Your task to perform on an android device: turn off javascript in the chrome app Image 0: 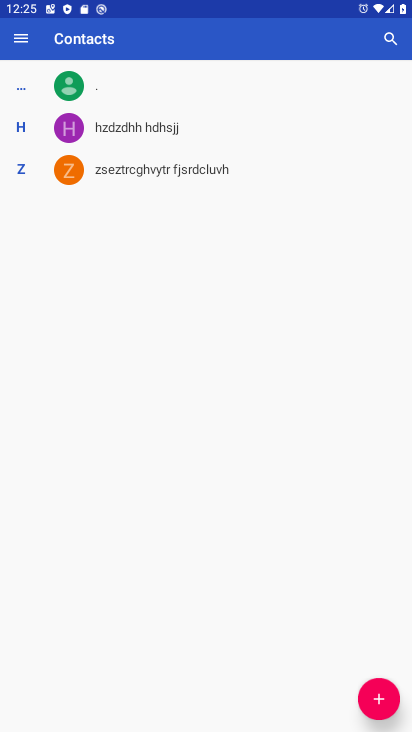
Step 0: press home button
Your task to perform on an android device: turn off javascript in the chrome app Image 1: 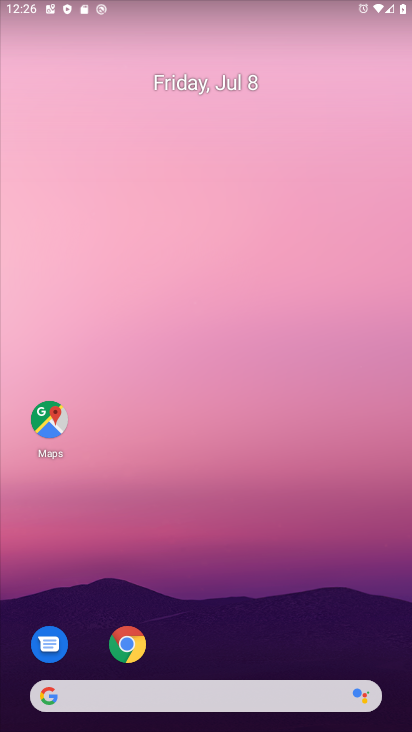
Step 1: click (149, 651)
Your task to perform on an android device: turn off javascript in the chrome app Image 2: 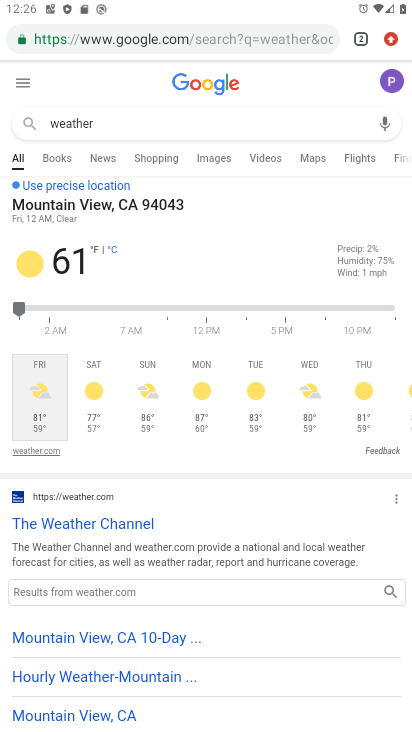
Step 2: click (393, 44)
Your task to perform on an android device: turn off javascript in the chrome app Image 3: 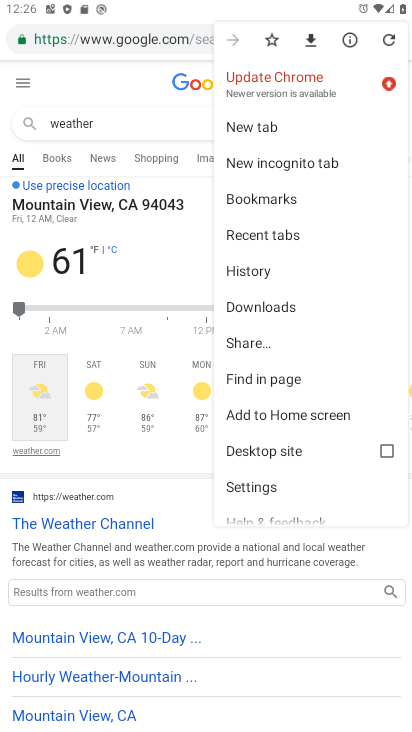
Step 3: click (271, 492)
Your task to perform on an android device: turn off javascript in the chrome app Image 4: 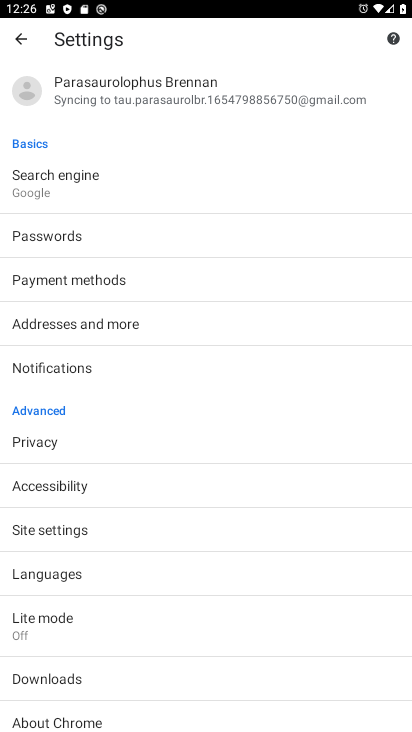
Step 4: click (45, 528)
Your task to perform on an android device: turn off javascript in the chrome app Image 5: 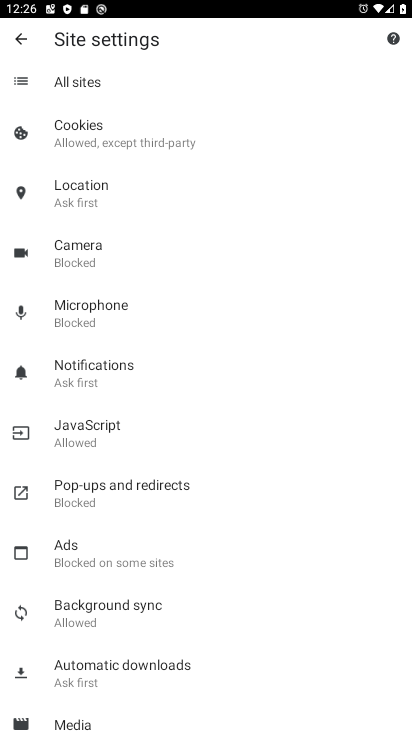
Step 5: click (133, 428)
Your task to perform on an android device: turn off javascript in the chrome app Image 6: 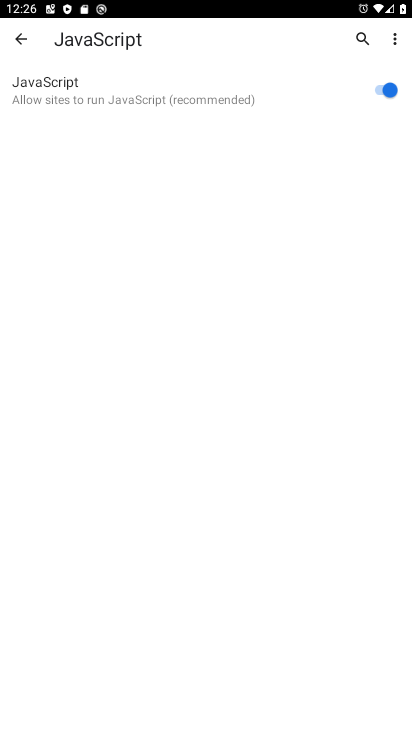
Step 6: click (389, 94)
Your task to perform on an android device: turn off javascript in the chrome app Image 7: 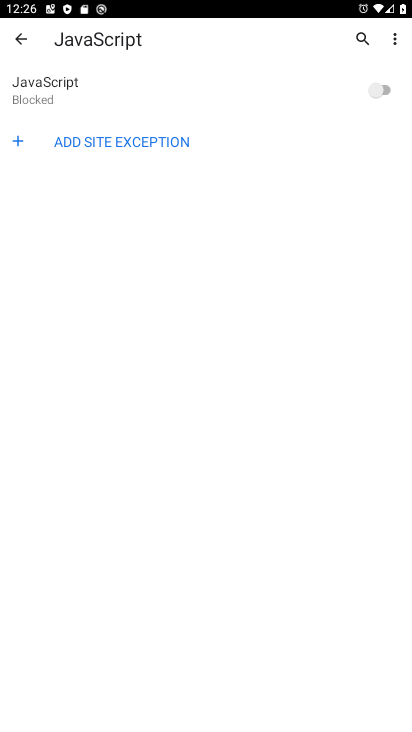
Step 7: task complete